Your task to perform on an android device: What's the news in Bangladesh? Image 0: 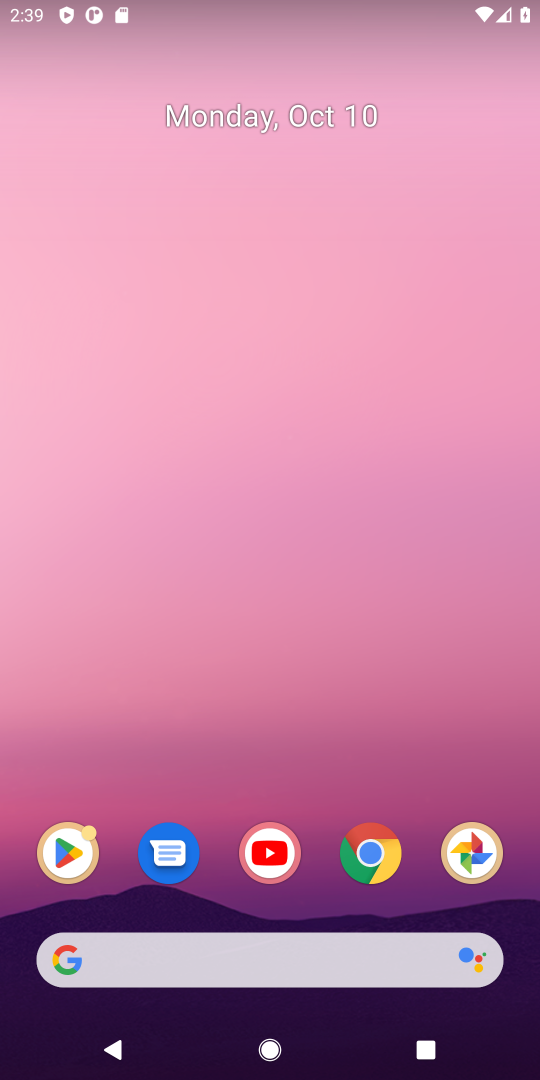
Step 0: click (371, 844)
Your task to perform on an android device: What's the news in Bangladesh? Image 1: 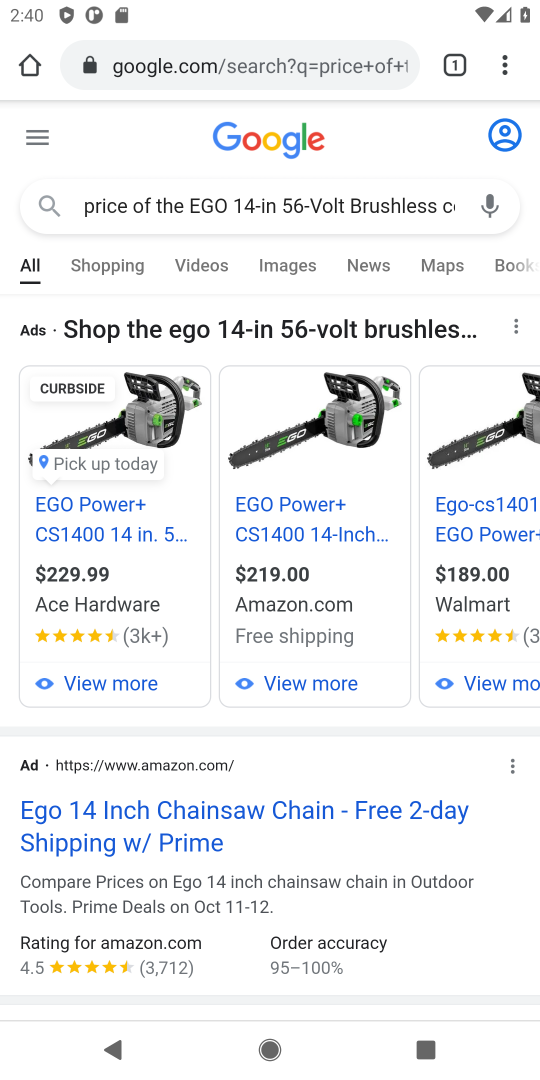
Step 1: click (289, 67)
Your task to perform on an android device: What's the news in Bangladesh? Image 2: 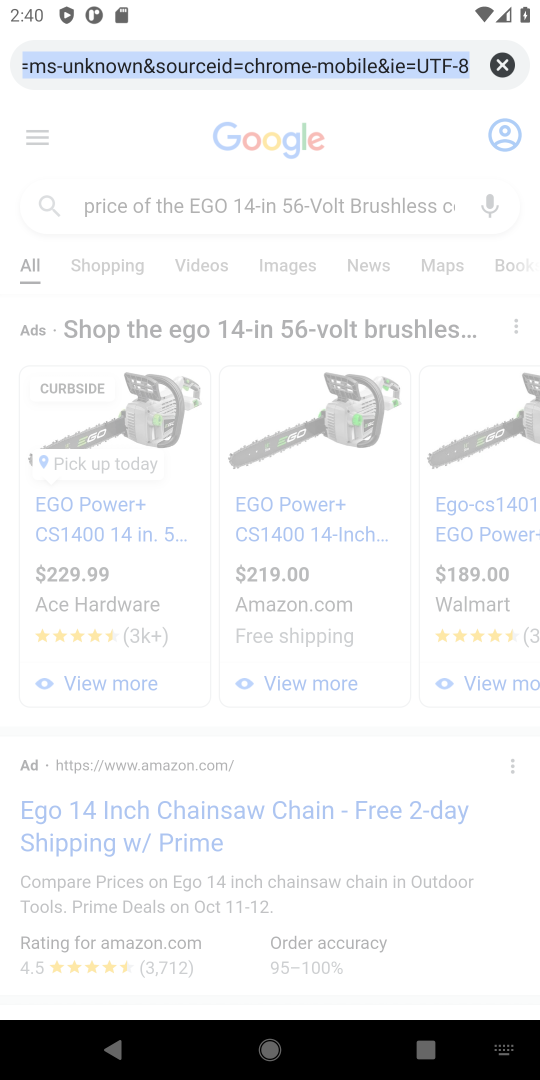
Step 2: type "news in bangladesh"
Your task to perform on an android device: What's the news in Bangladesh? Image 3: 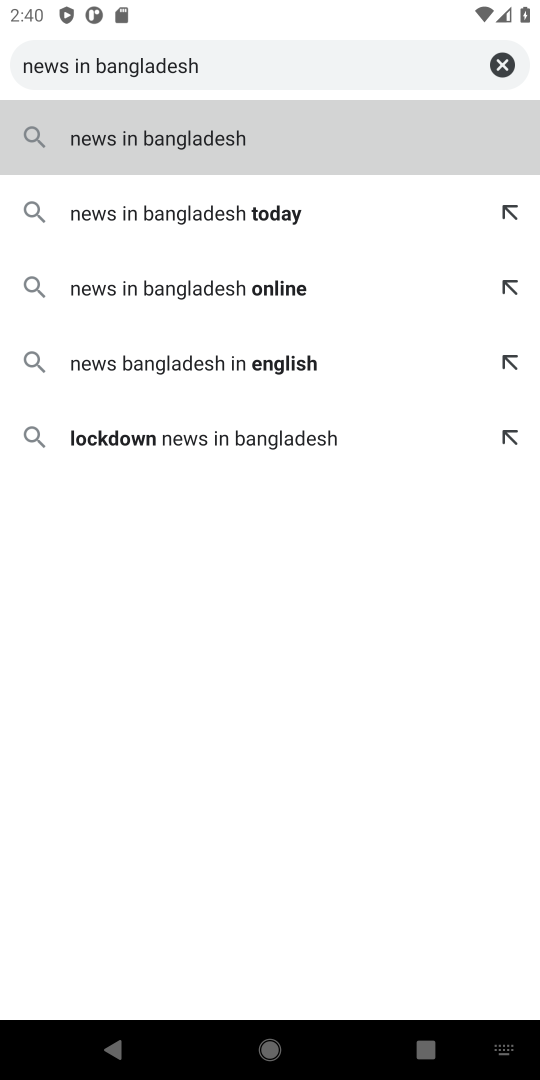
Step 3: click (300, 121)
Your task to perform on an android device: What's the news in Bangladesh? Image 4: 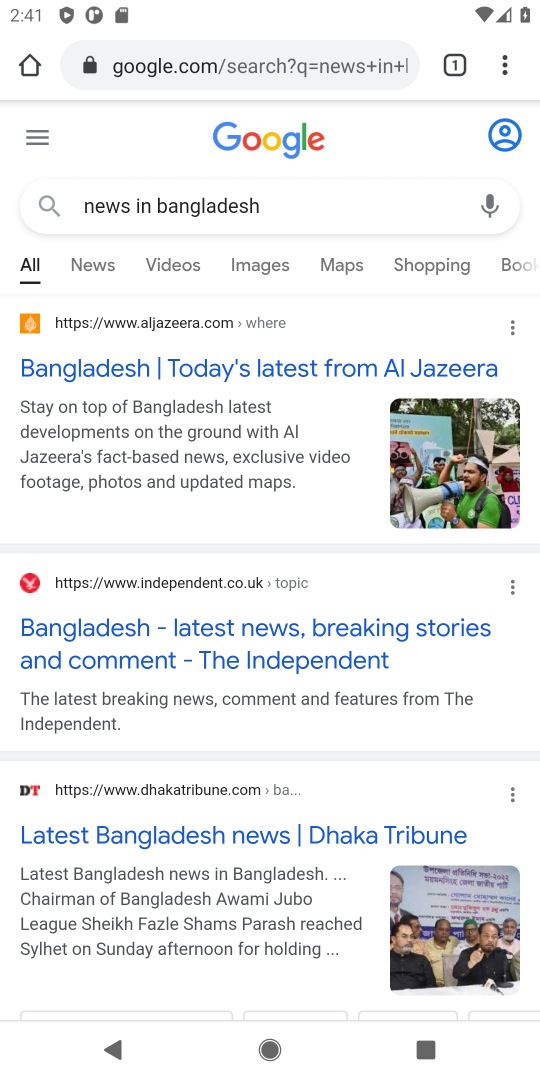
Step 4: click (107, 256)
Your task to perform on an android device: What's the news in Bangladesh? Image 5: 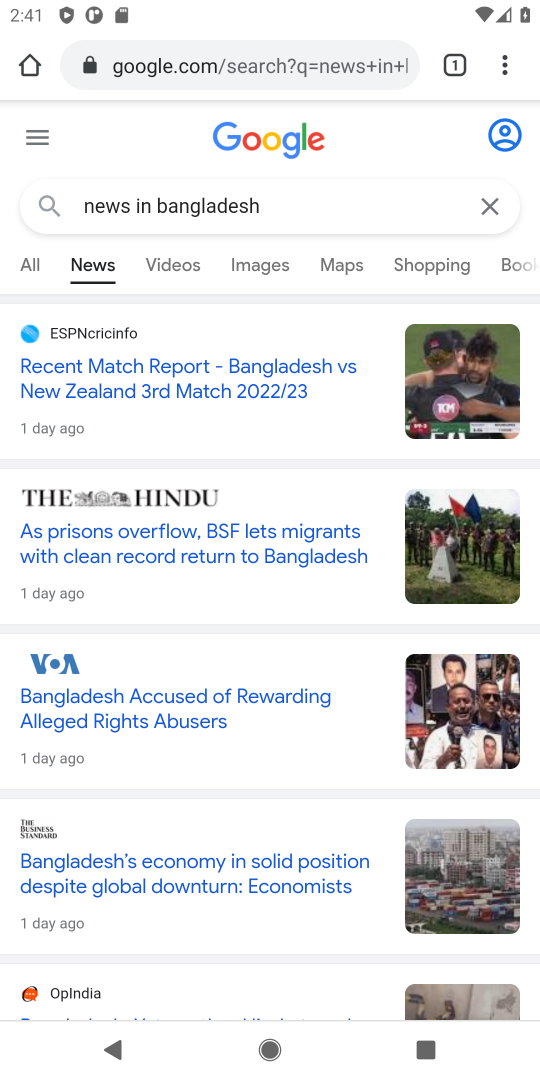
Step 5: task complete